Your task to perform on an android device: open chrome privacy settings Image 0: 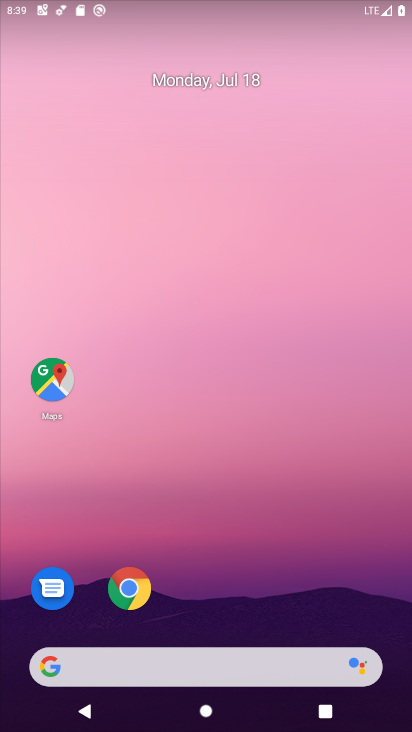
Step 0: drag from (187, 609) to (257, 29)
Your task to perform on an android device: open chrome privacy settings Image 1: 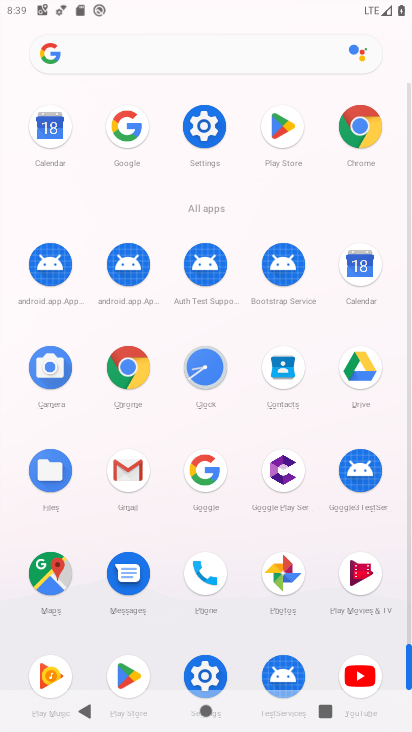
Step 1: click (136, 370)
Your task to perform on an android device: open chrome privacy settings Image 2: 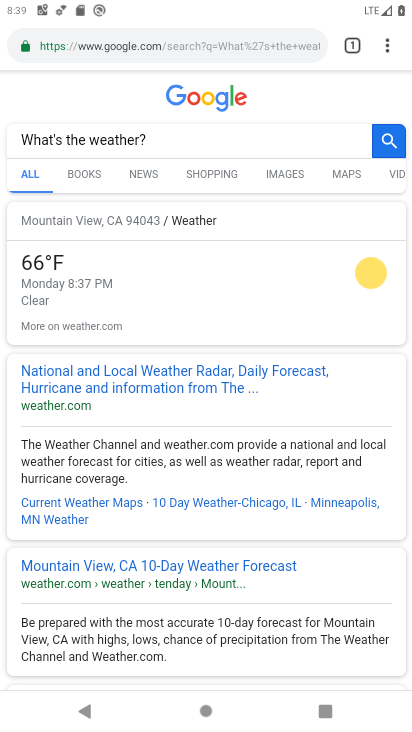
Step 2: drag from (389, 48) to (269, 542)
Your task to perform on an android device: open chrome privacy settings Image 3: 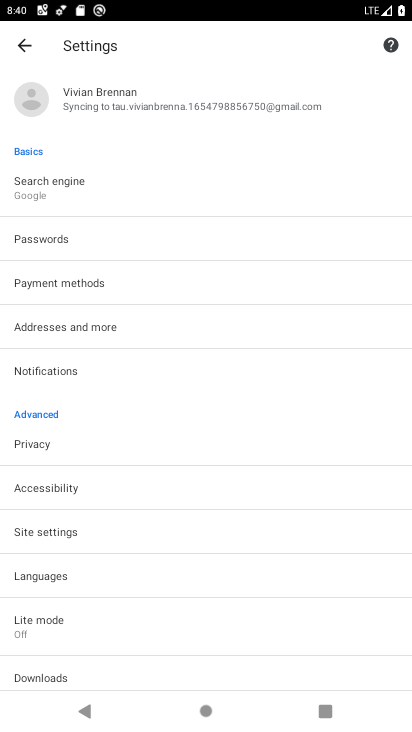
Step 3: click (93, 444)
Your task to perform on an android device: open chrome privacy settings Image 4: 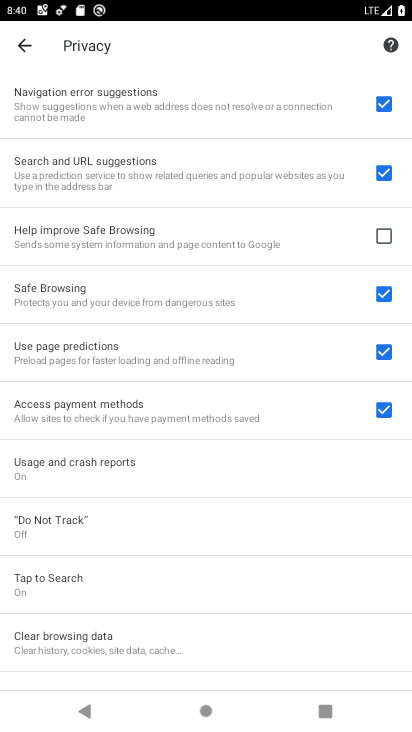
Step 4: task complete